Your task to perform on an android device: Open Youtube and go to "Your channel" Image 0: 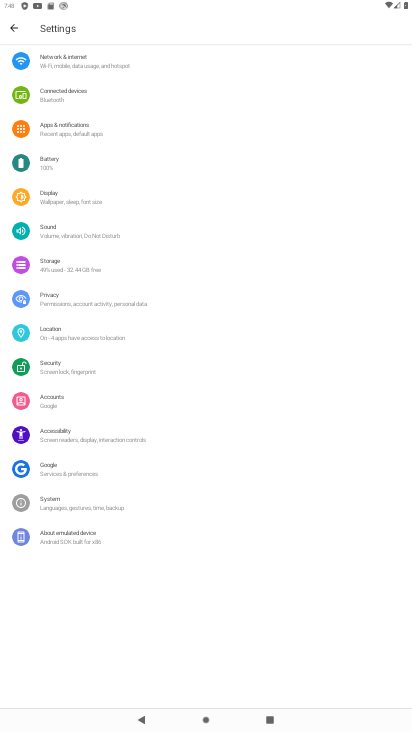
Step 0: press home button
Your task to perform on an android device: Open Youtube and go to "Your channel" Image 1: 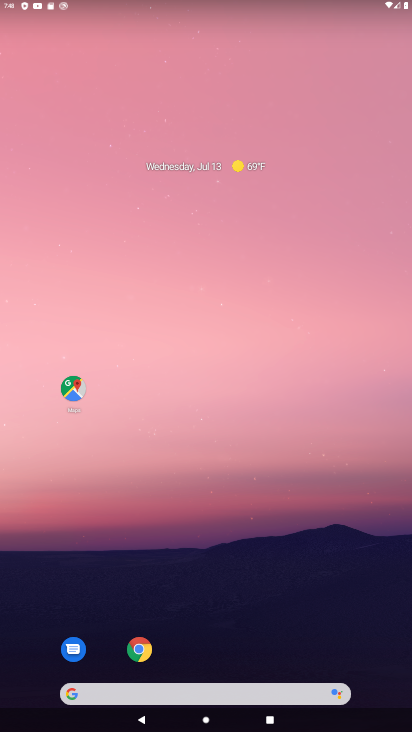
Step 1: drag from (207, 685) to (275, 162)
Your task to perform on an android device: Open Youtube and go to "Your channel" Image 2: 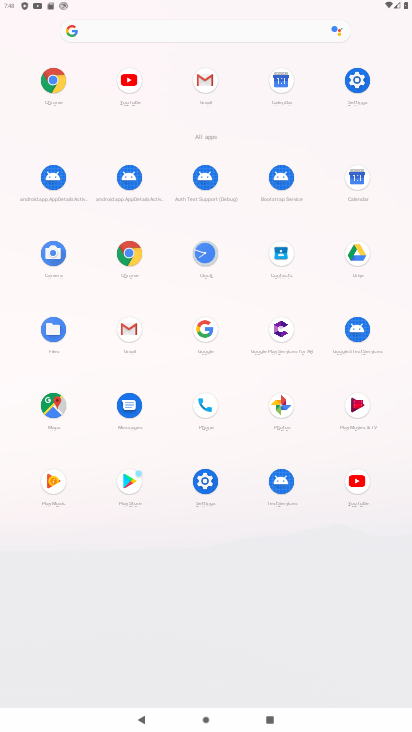
Step 2: click (355, 482)
Your task to perform on an android device: Open Youtube and go to "Your channel" Image 3: 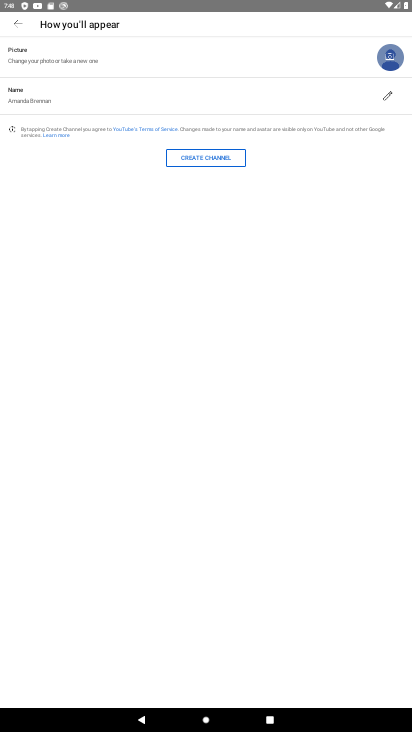
Step 3: task complete